Your task to perform on an android device: check battery use Image 0: 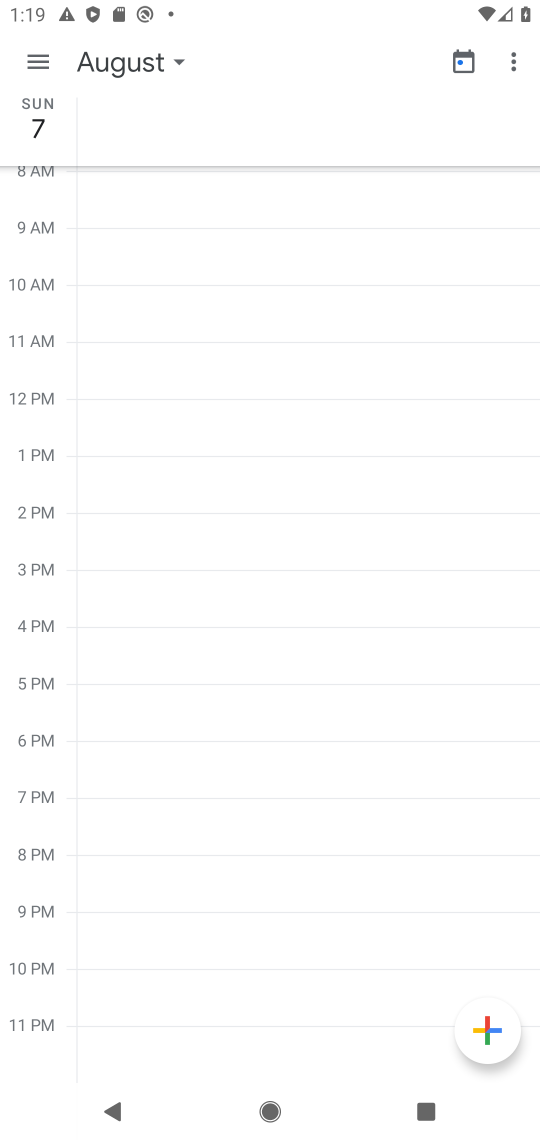
Step 0: press home button
Your task to perform on an android device: check battery use Image 1: 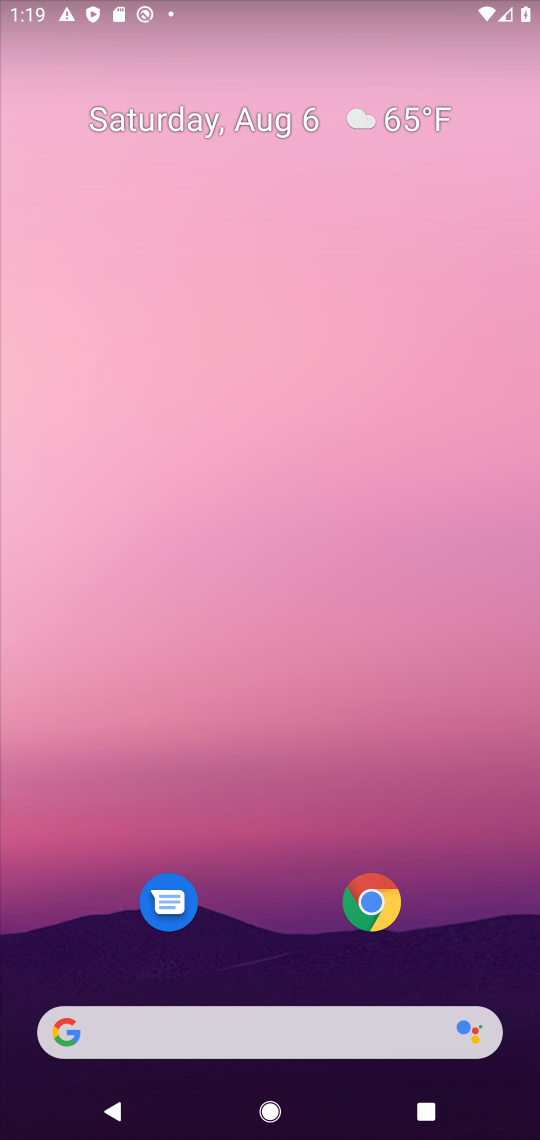
Step 1: drag from (271, 775) to (244, 39)
Your task to perform on an android device: check battery use Image 2: 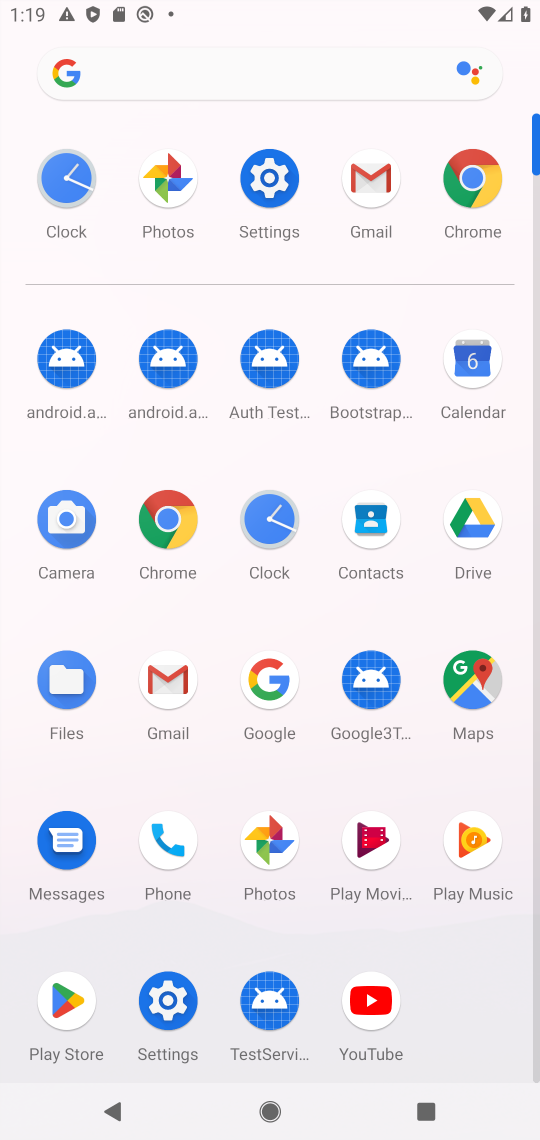
Step 2: click (266, 188)
Your task to perform on an android device: check battery use Image 3: 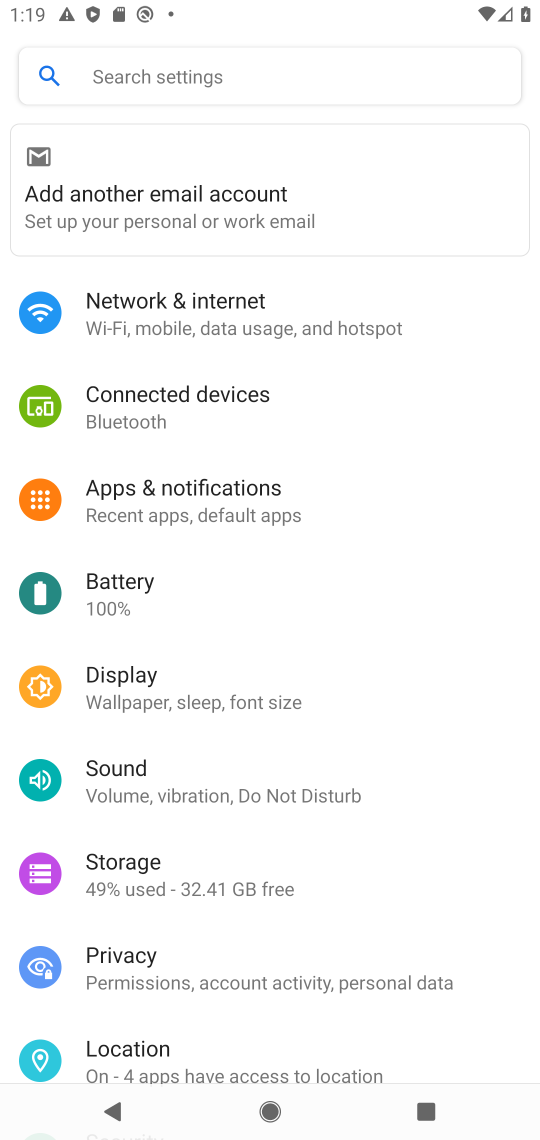
Step 3: click (111, 575)
Your task to perform on an android device: check battery use Image 4: 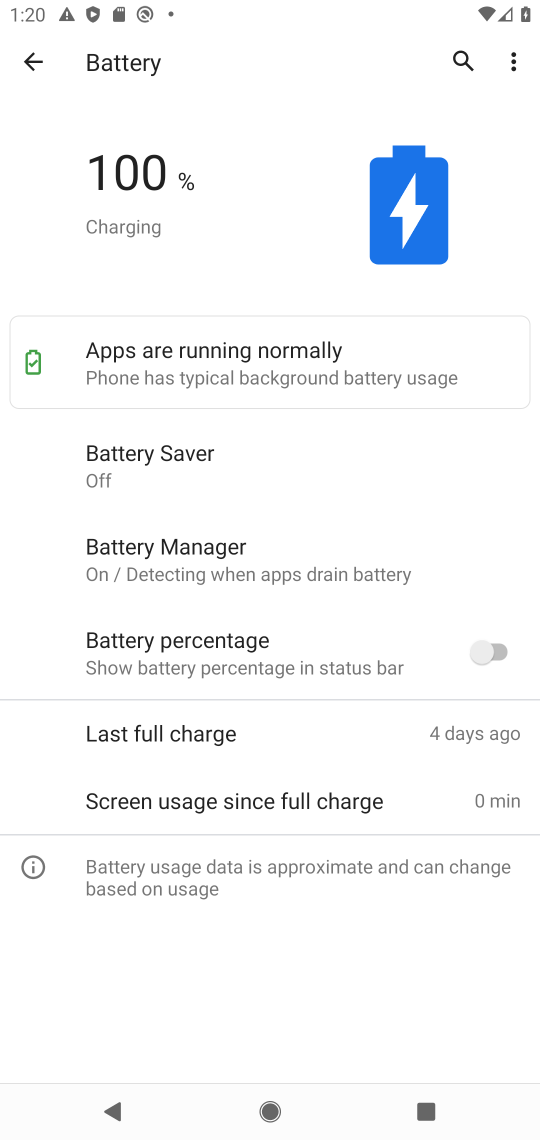
Step 4: task complete